Your task to perform on an android device: Open privacy settings Image 0: 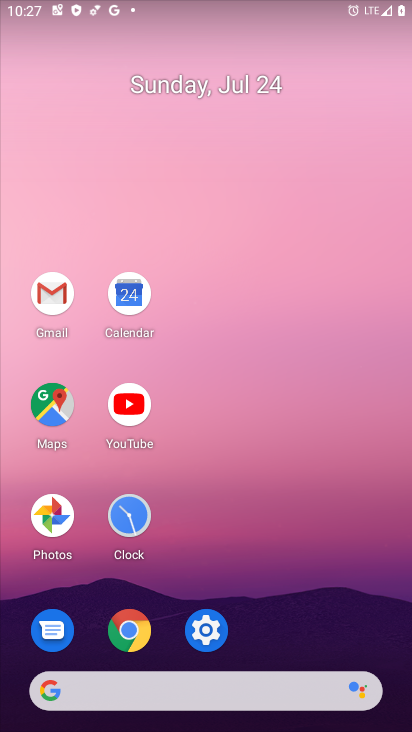
Step 0: click (205, 630)
Your task to perform on an android device: Open privacy settings Image 1: 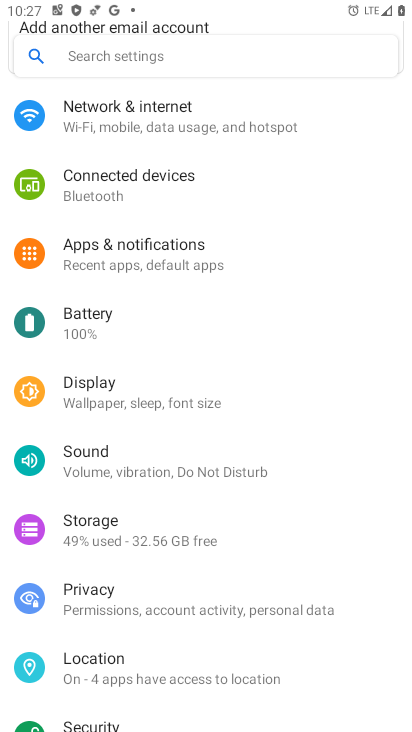
Step 1: click (64, 579)
Your task to perform on an android device: Open privacy settings Image 2: 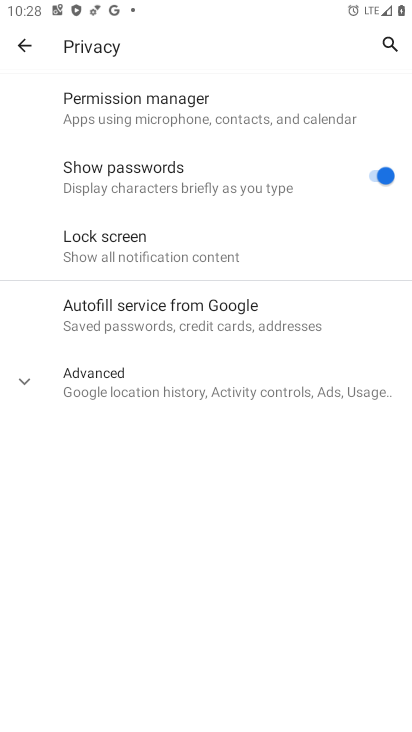
Step 2: task complete